Your task to perform on an android device: manage bookmarks in the chrome app Image 0: 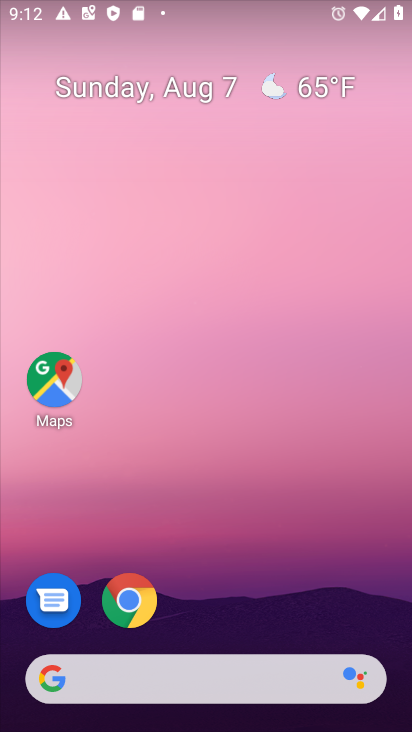
Step 0: click (120, 599)
Your task to perform on an android device: manage bookmarks in the chrome app Image 1: 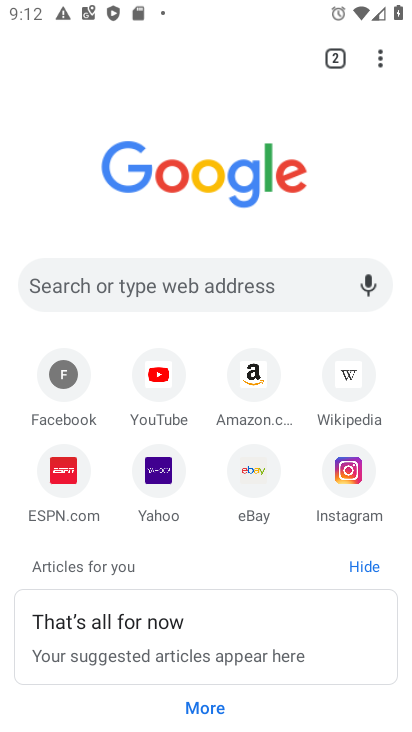
Step 1: click (377, 62)
Your task to perform on an android device: manage bookmarks in the chrome app Image 2: 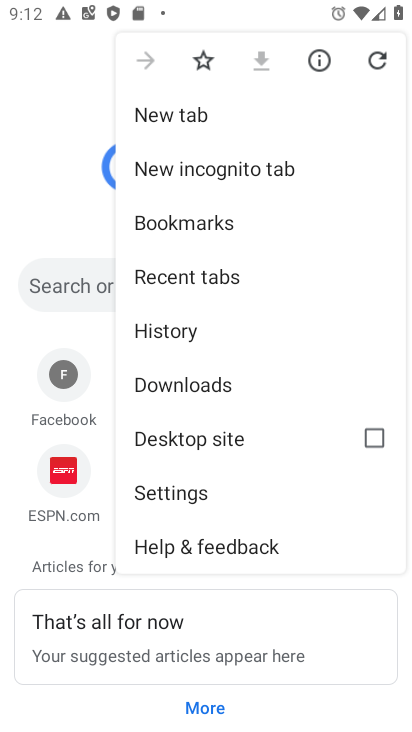
Step 2: click (212, 219)
Your task to perform on an android device: manage bookmarks in the chrome app Image 3: 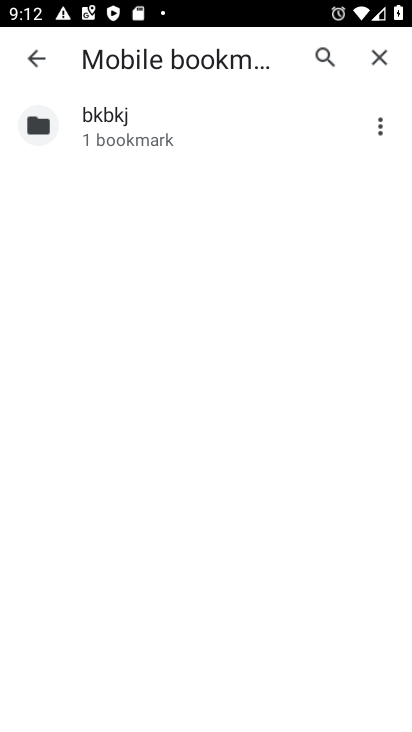
Step 3: click (379, 129)
Your task to perform on an android device: manage bookmarks in the chrome app Image 4: 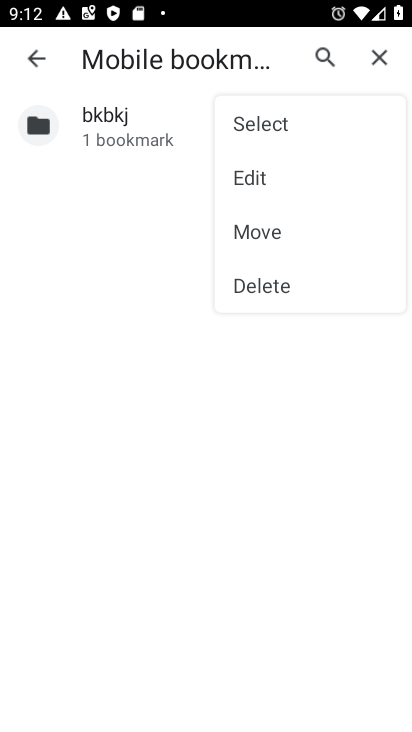
Step 4: click (276, 274)
Your task to perform on an android device: manage bookmarks in the chrome app Image 5: 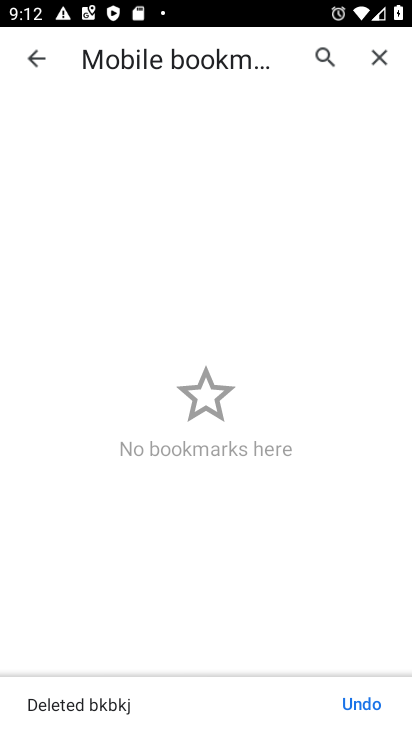
Step 5: task complete